Your task to perform on an android device: Go to location settings Image 0: 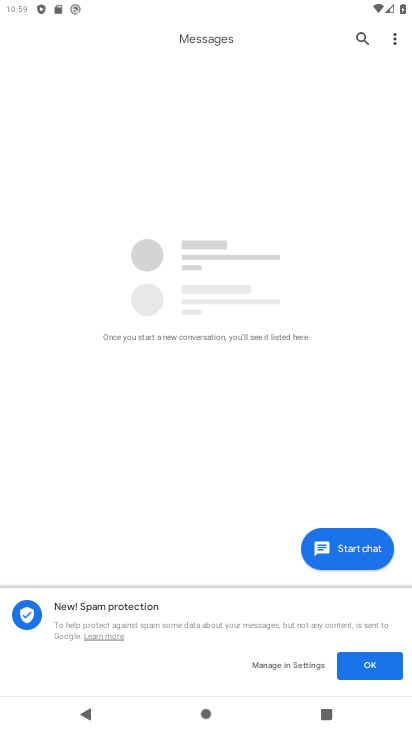
Step 0: press home button
Your task to perform on an android device: Go to location settings Image 1: 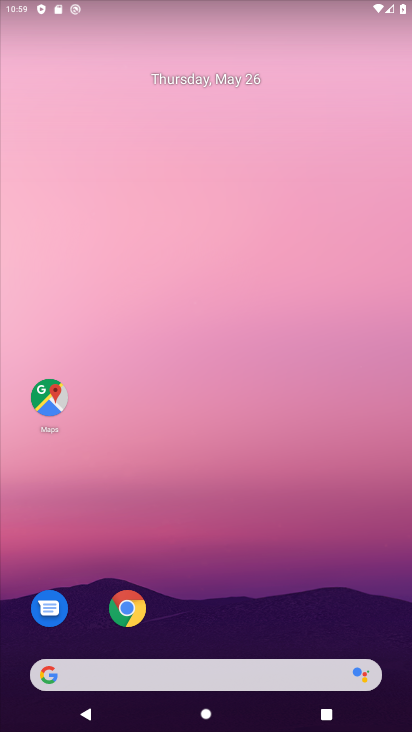
Step 1: click (300, 456)
Your task to perform on an android device: Go to location settings Image 2: 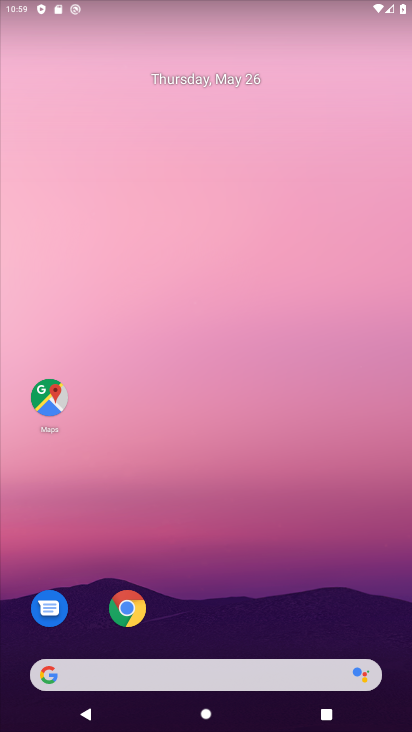
Step 2: drag from (207, 586) to (110, 136)
Your task to perform on an android device: Go to location settings Image 3: 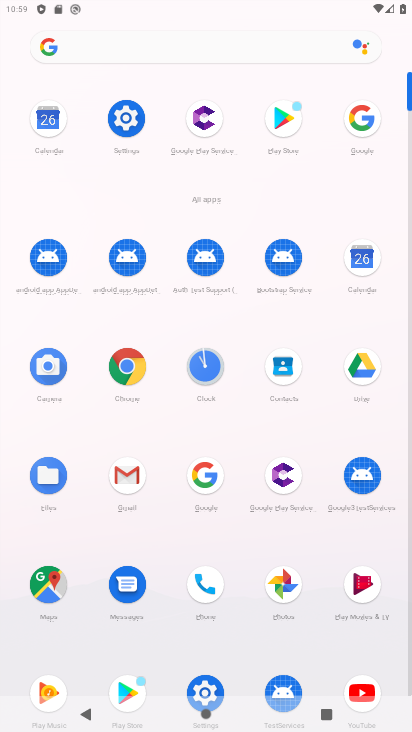
Step 3: click (126, 110)
Your task to perform on an android device: Go to location settings Image 4: 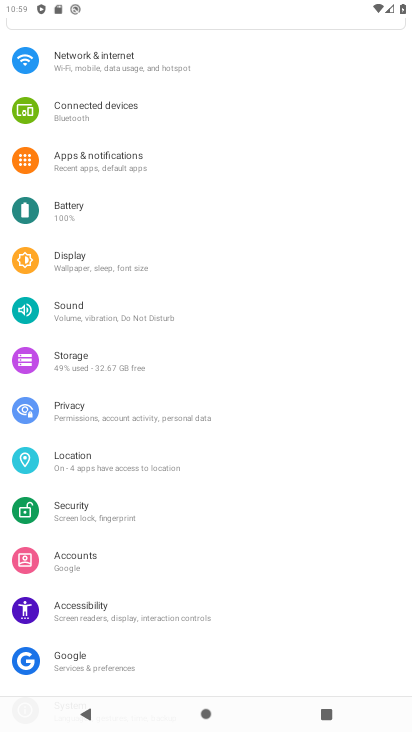
Step 4: click (69, 453)
Your task to perform on an android device: Go to location settings Image 5: 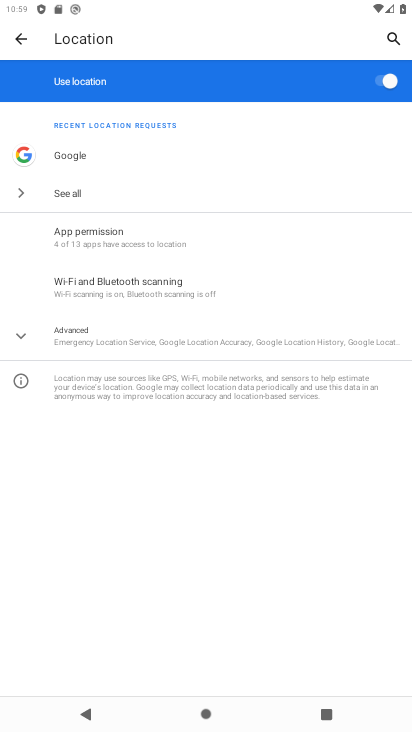
Step 5: task complete